Your task to perform on an android device: Open notification settings Image 0: 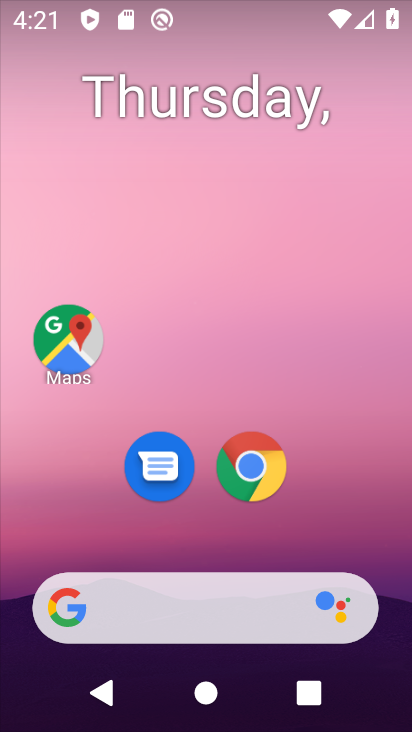
Step 0: press home button
Your task to perform on an android device: Open notification settings Image 1: 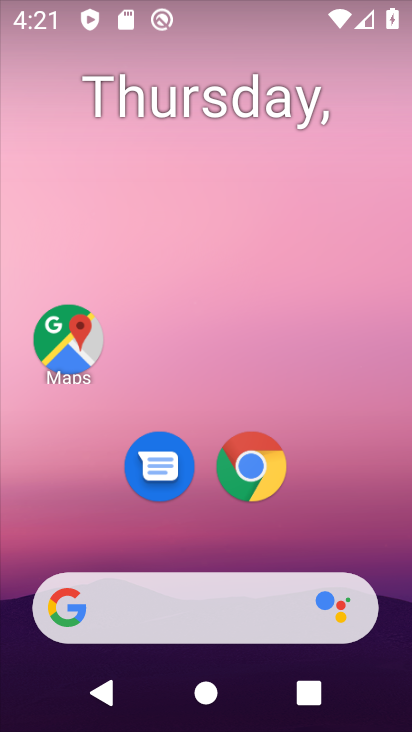
Step 1: drag from (196, 546) to (238, 8)
Your task to perform on an android device: Open notification settings Image 2: 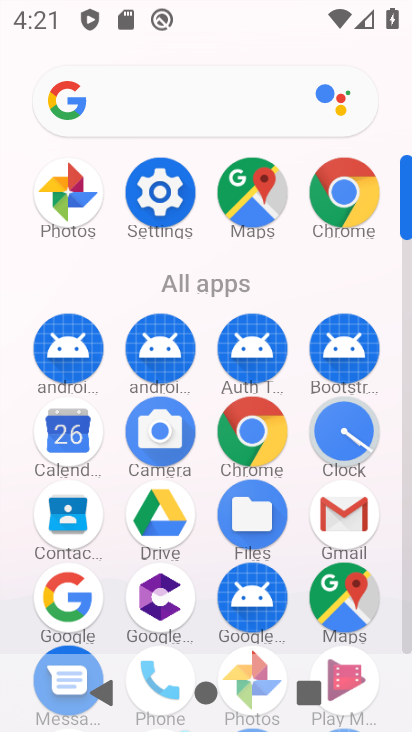
Step 2: click (157, 183)
Your task to perform on an android device: Open notification settings Image 3: 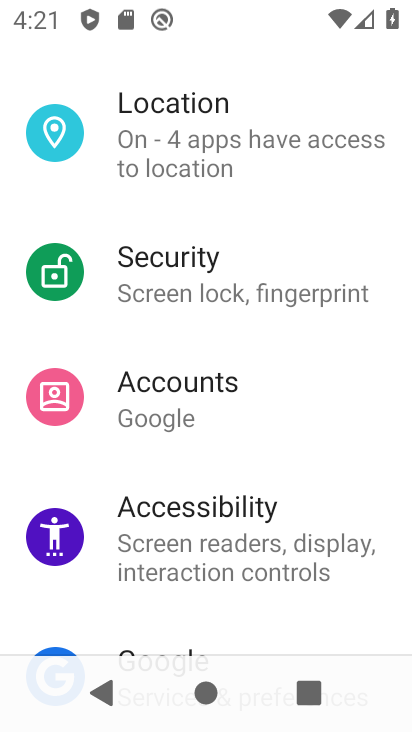
Step 3: drag from (96, 91) to (139, 669)
Your task to perform on an android device: Open notification settings Image 4: 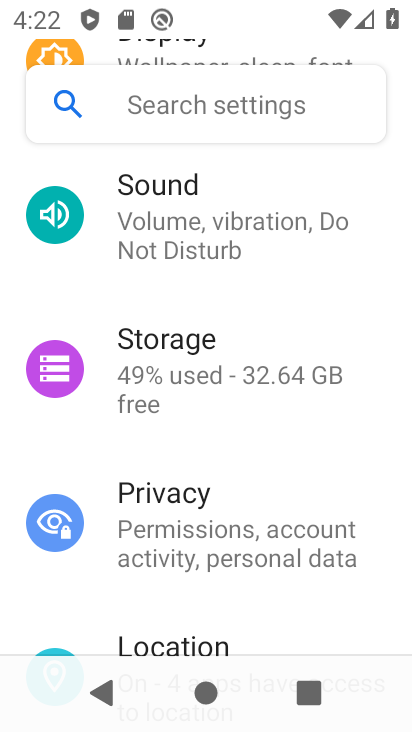
Step 4: drag from (104, 192) to (119, 661)
Your task to perform on an android device: Open notification settings Image 5: 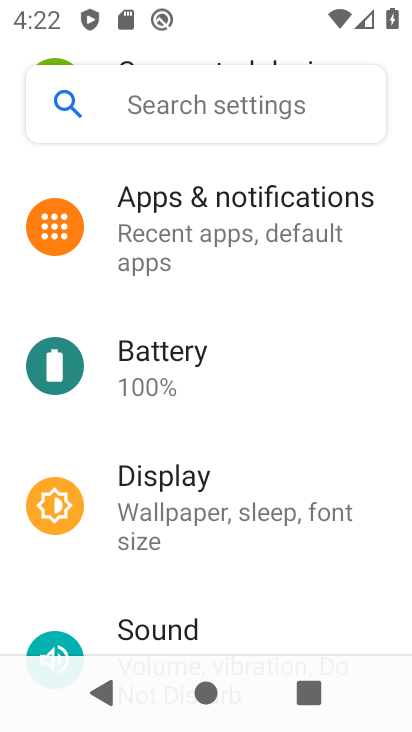
Step 5: click (102, 206)
Your task to perform on an android device: Open notification settings Image 6: 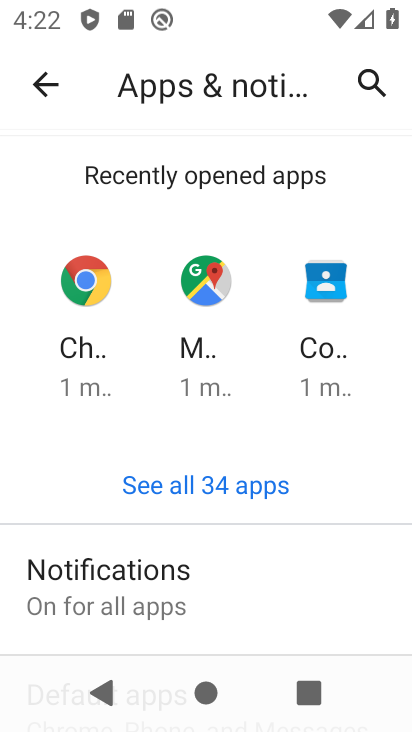
Step 6: click (204, 573)
Your task to perform on an android device: Open notification settings Image 7: 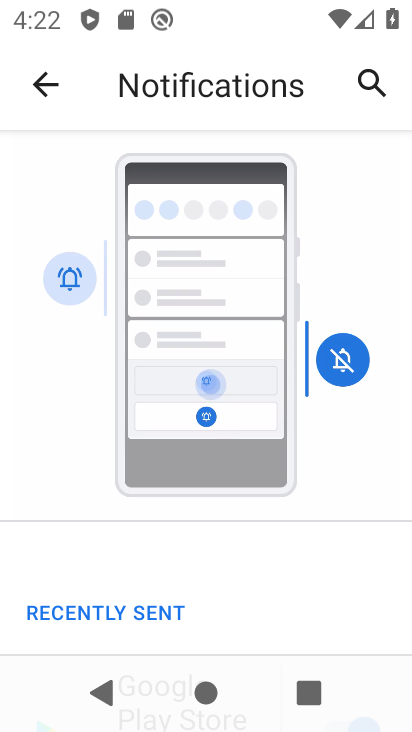
Step 7: drag from (221, 611) to (242, 203)
Your task to perform on an android device: Open notification settings Image 8: 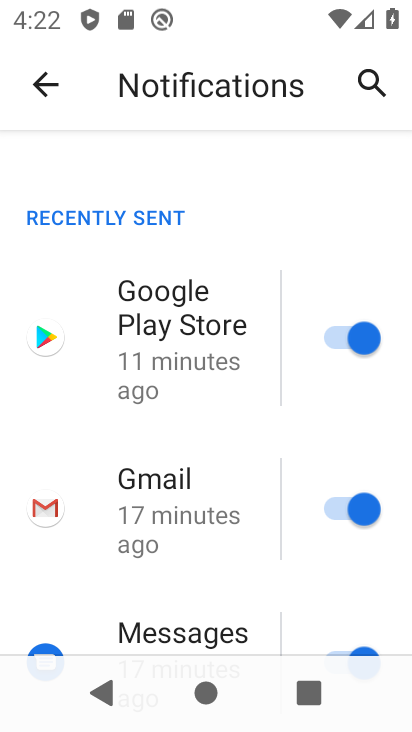
Step 8: drag from (231, 598) to (263, 72)
Your task to perform on an android device: Open notification settings Image 9: 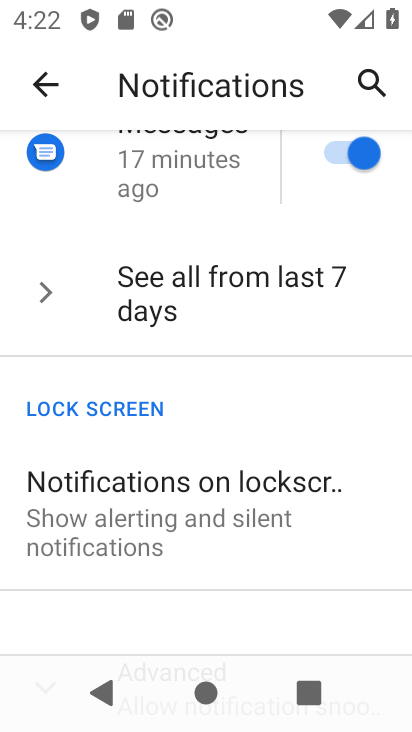
Step 9: drag from (232, 607) to (229, 214)
Your task to perform on an android device: Open notification settings Image 10: 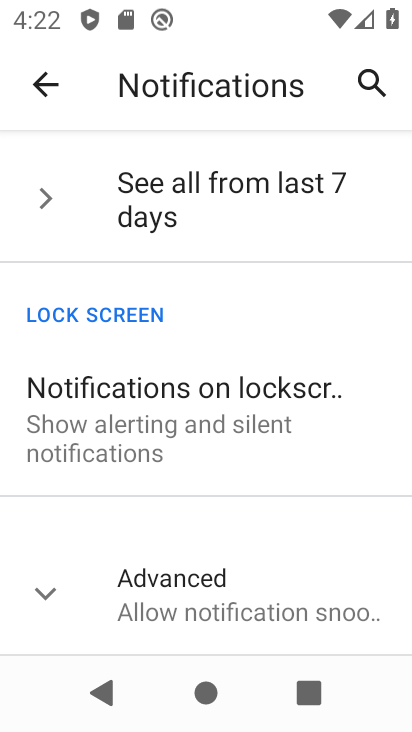
Step 10: click (40, 582)
Your task to perform on an android device: Open notification settings Image 11: 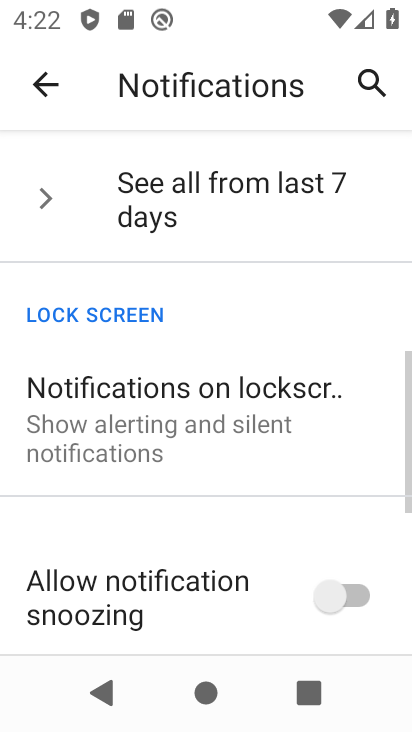
Step 11: task complete